Your task to perform on an android device: Open the web browser Image 0: 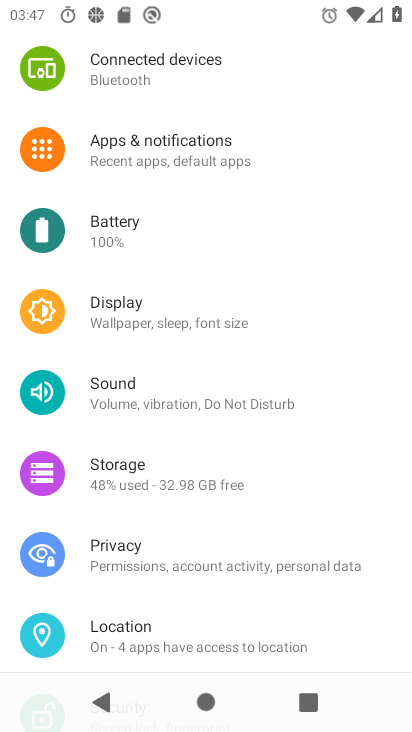
Step 0: press back button
Your task to perform on an android device: Open the web browser Image 1: 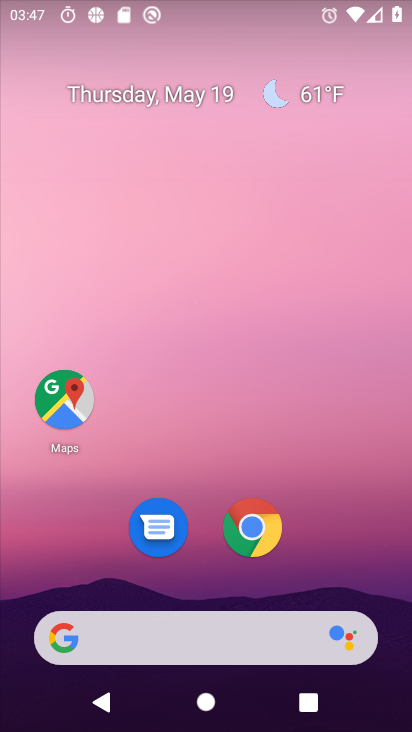
Step 1: click (249, 527)
Your task to perform on an android device: Open the web browser Image 2: 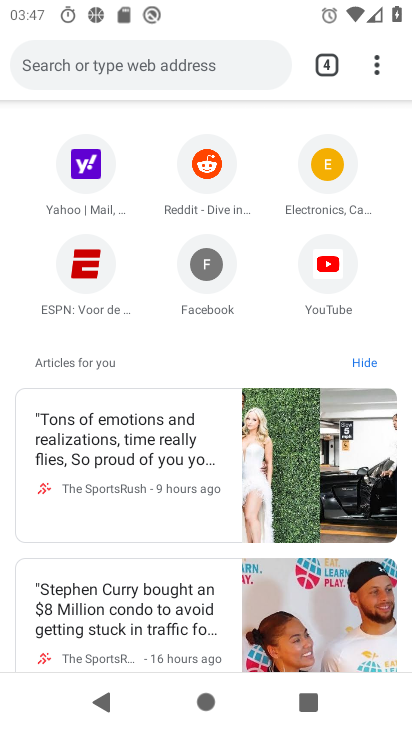
Step 2: task complete